Your task to perform on an android device: Open Chrome and go to settings Image 0: 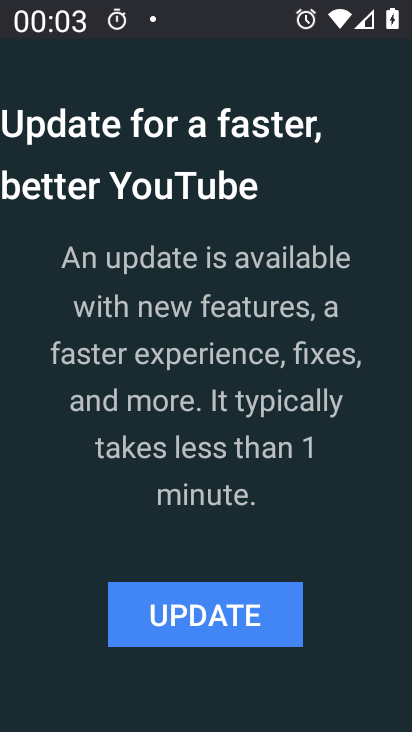
Step 0: press home button
Your task to perform on an android device: Open Chrome and go to settings Image 1: 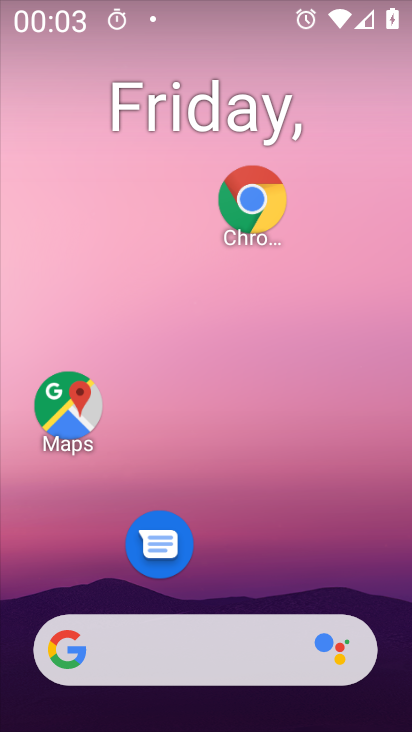
Step 1: click (258, 204)
Your task to perform on an android device: Open Chrome and go to settings Image 2: 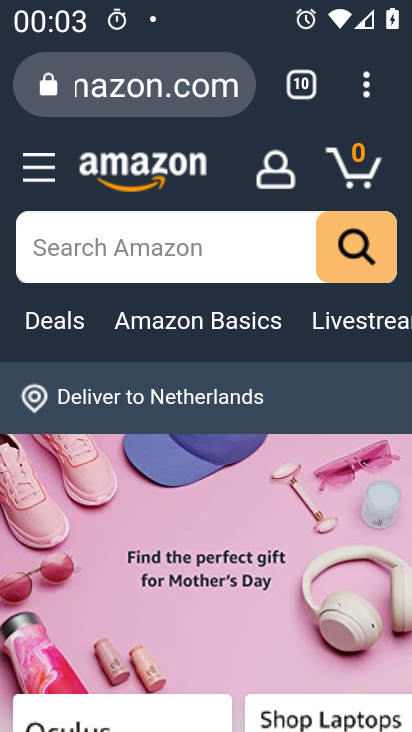
Step 2: click (353, 67)
Your task to perform on an android device: Open Chrome and go to settings Image 3: 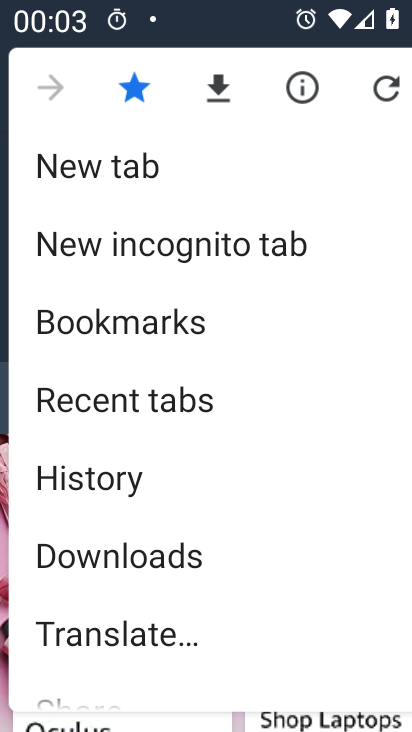
Step 3: drag from (111, 630) to (128, 301)
Your task to perform on an android device: Open Chrome and go to settings Image 4: 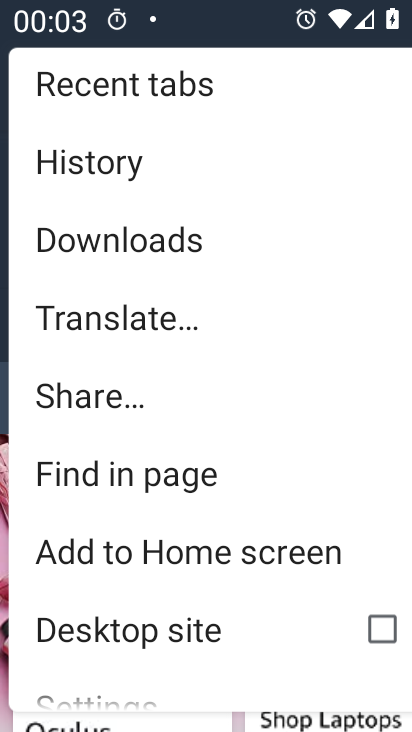
Step 4: drag from (32, 682) to (110, 326)
Your task to perform on an android device: Open Chrome and go to settings Image 5: 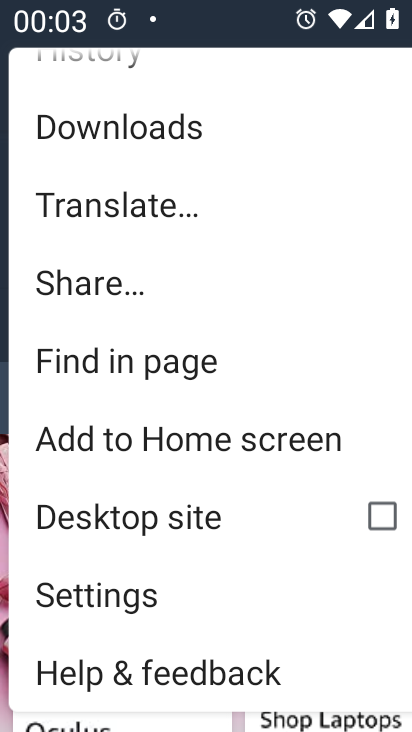
Step 5: click (113, 584)
Your task to perform on an android device: Open Chrome and go to settings Image 6: 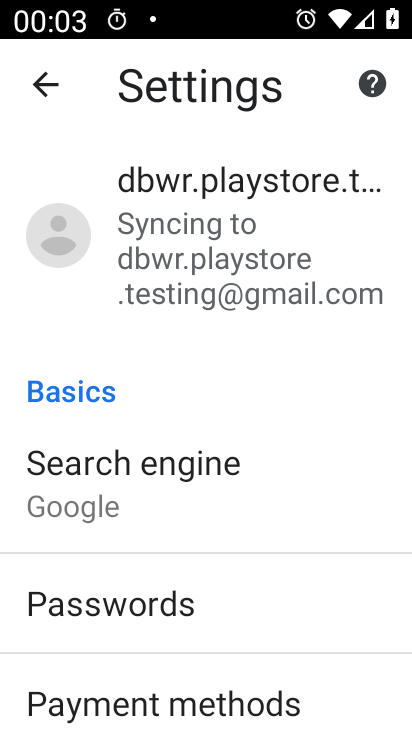
Step 6: task complete